Your task to perform on an android device: Open Chrome and go to settings Image 0: 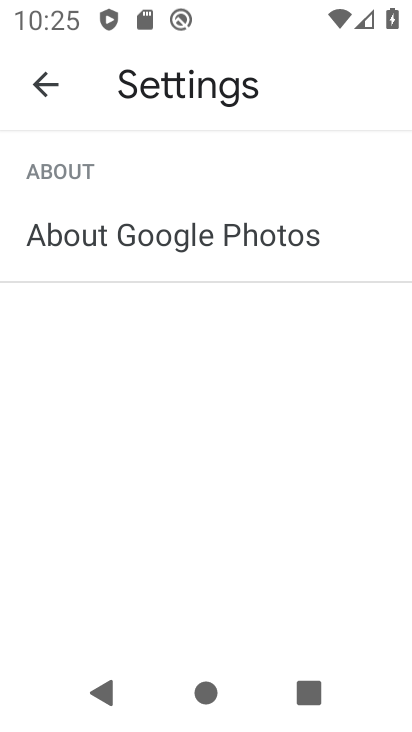
Step 0: press home button
Your task to perform on an android device: Open Chrome and go to settings Image 1: 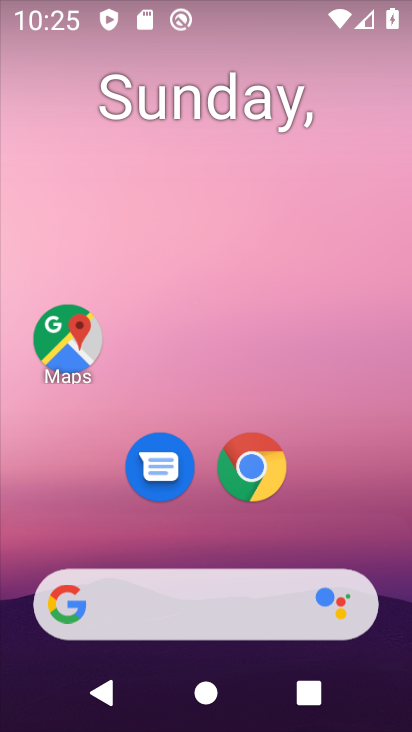
Step 1: click (267, 446)
Your task to perform on an android device: Open Chrome and go to settings Image 2: 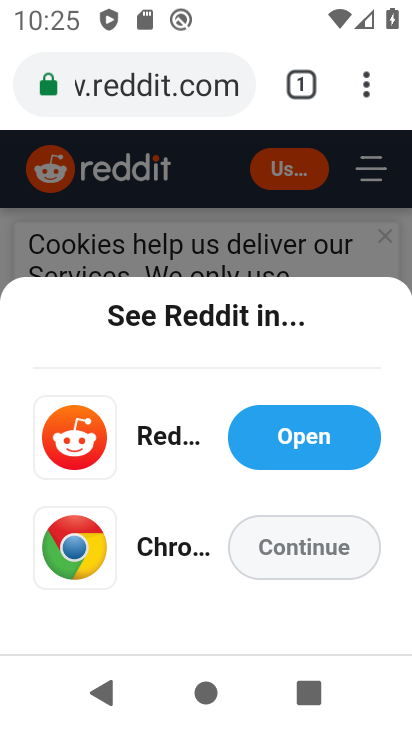
Step 2: task complete